Your task to perform on an android device: add a contact in the contacts app Image 0: 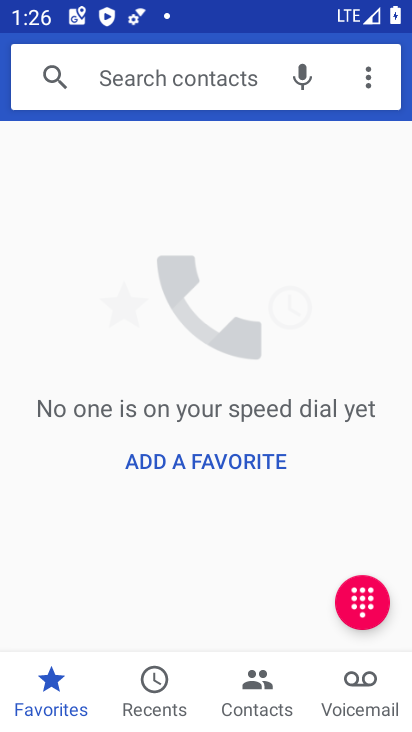
Step 0: press home button
Your task to perform on an android device: add a contact in the contacts app Image 1: 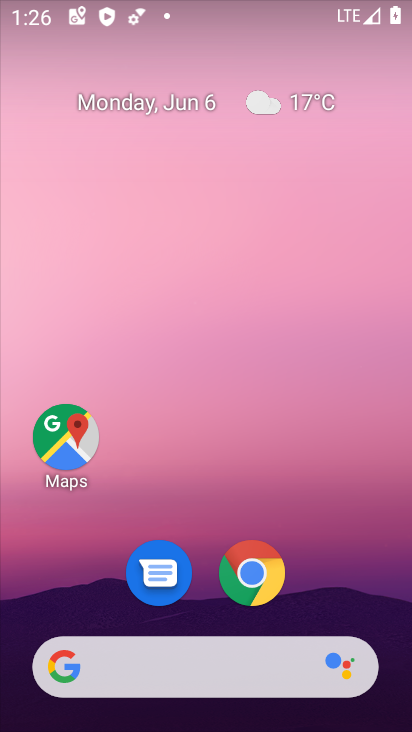
Step 1: drag from (382, 588) to (361, 208)
Your task to perform on an android device: add a contact in the contacts app Image 2: 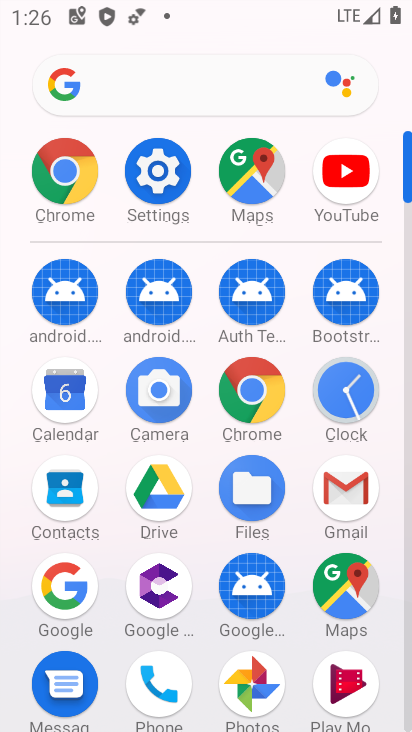
Step 2: click (64, 504)
Your task to perform on an android device: add a contact in the contacts app Image 3: 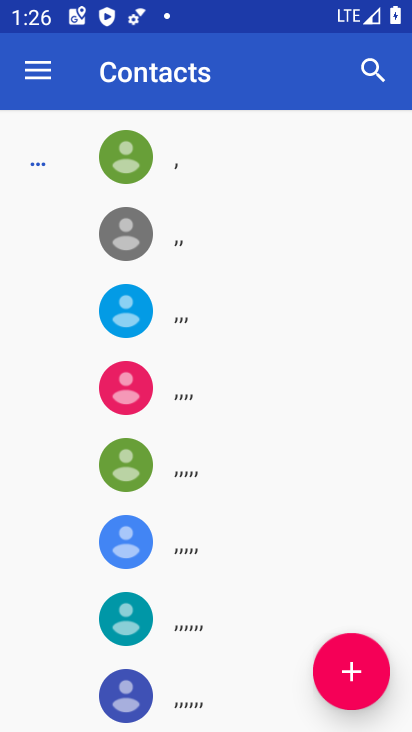
Step 3: click (361, 677)
Your task to perform on an android device: add a contact in the contacts app Image 4: 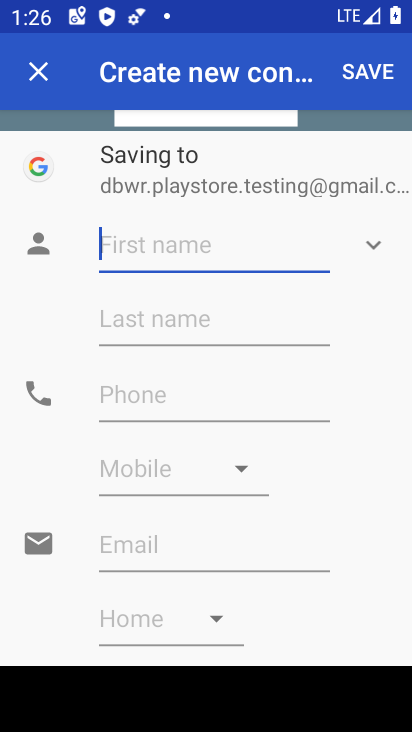
Step 4: click (105, 261)
Your task to perform on an android device: add a contact in the contacts app Image 5: 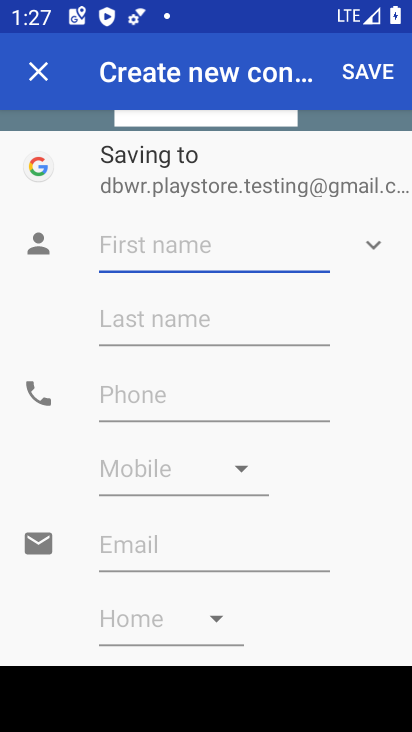
Step 5: type "llllllllll"
Your task to perform on an android device: add a contact in the contacts app Image 6: 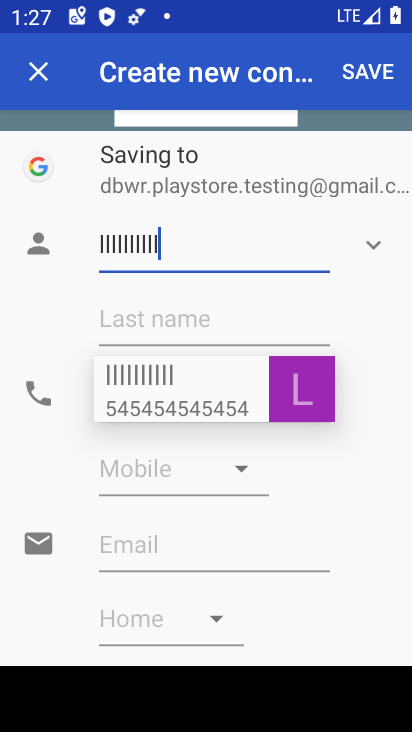
Step 6: click (361, 345)
Your task to perform on an android device: add a contact in the contacts app Image 7: 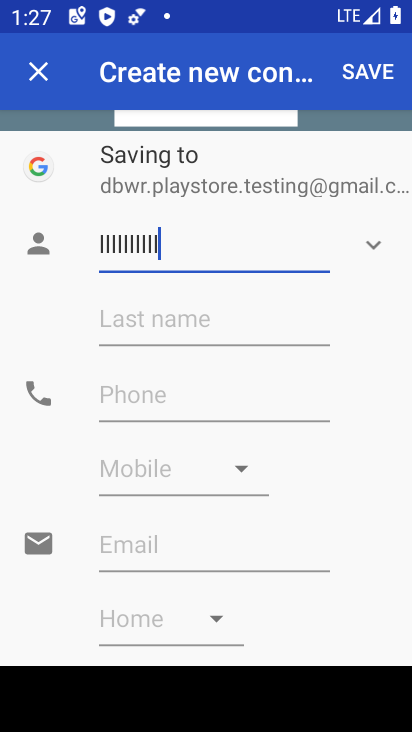
Step 7: click (122, 397)
Your task to perform on an android device: add a contact in the contacts app Image 8: 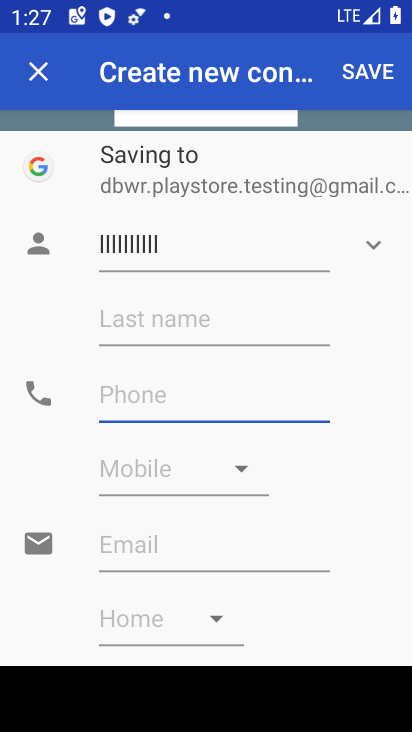
Step 8: type "233333444555"
Your task to perform on an android device: add a contact in the contacts app Image 9: 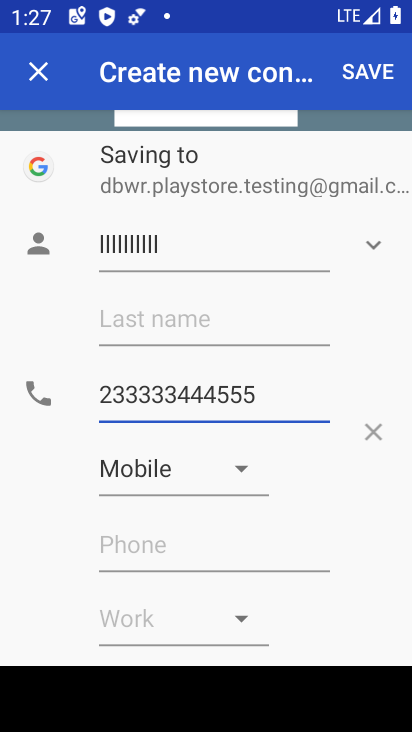
Step 9: click (374, 90)
Your task to perform on an android device: add a contact in the contacts app Image 10: 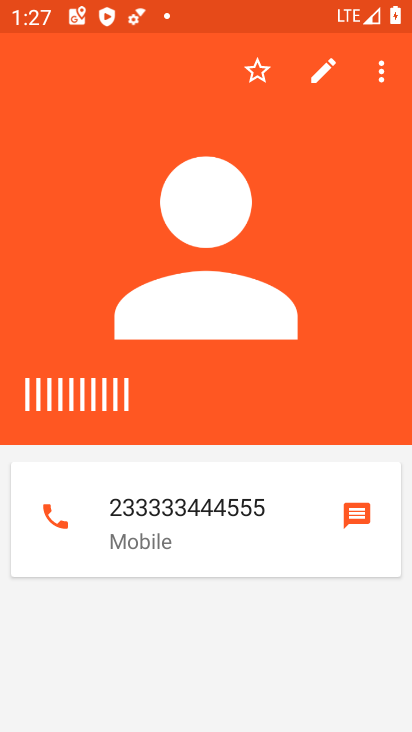
Step 10: task complete